Your task to perform on an android device: all mails in gmail Image 0: 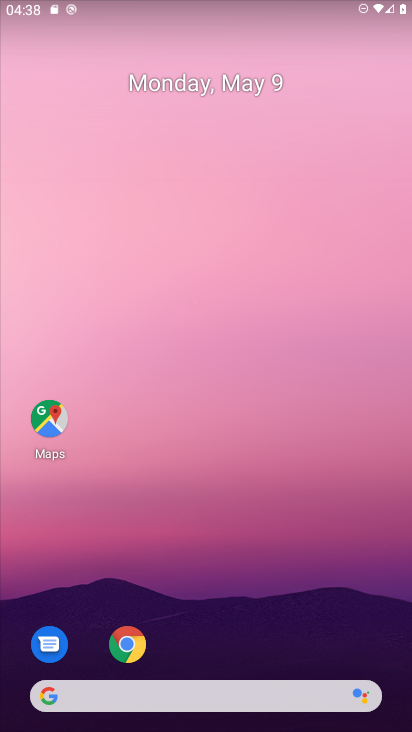
Step 0: drag from (287, 605) to (275, 152)
Your task to perform on an android device: all mails in gmail Image 1: 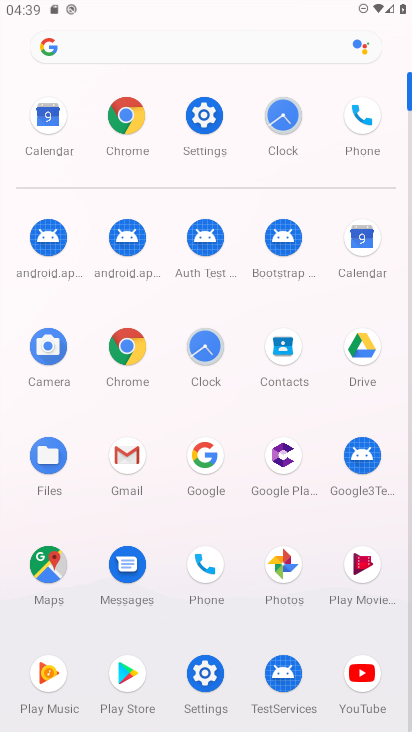
Step 1: click (122, 469)
Your task to perform on an android device: all mails in gmail Image 2: 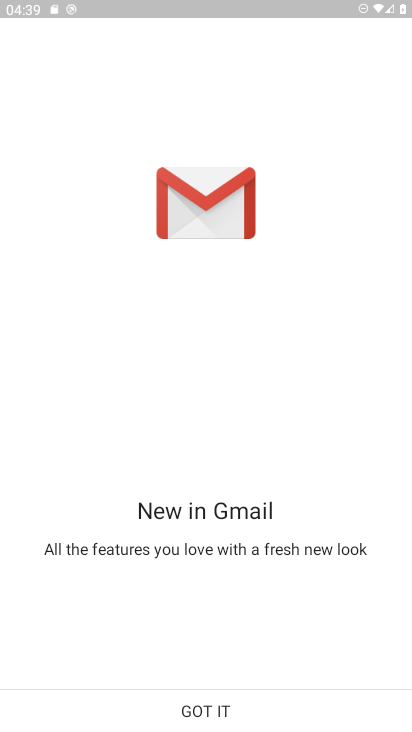
Step 2: click (226, 702)
Your task to perform on an android device: all mails in gmail Image 3: 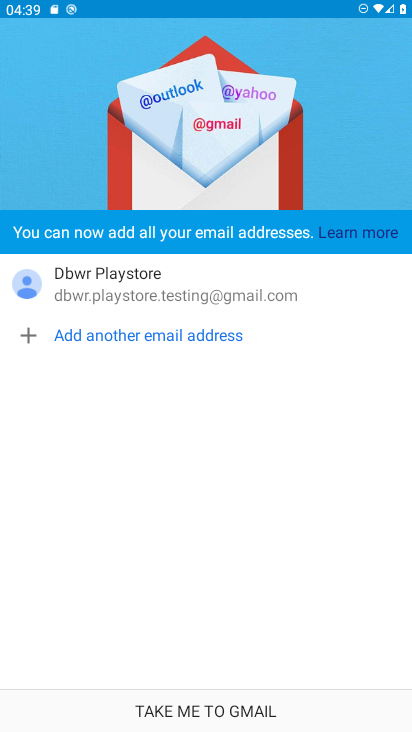
Step 3: click (226, 702)
Your task to perform on an android device: all mails in gmail Image 4: 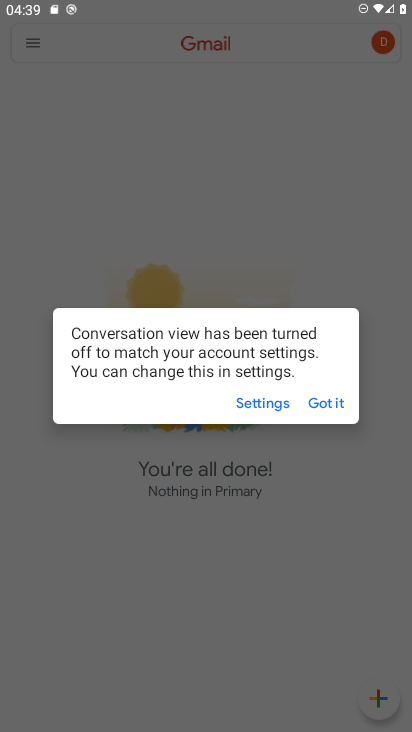
Step 4: click (333, 401)
Your task to perform on an android device: all mails in gmail Image 5: 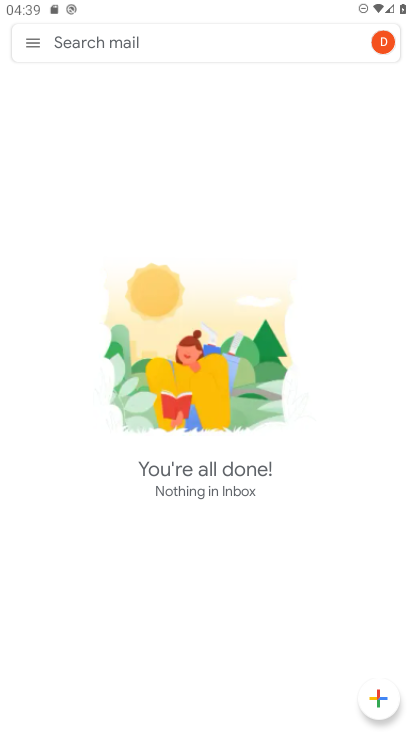
Step 5: click (25, 38)
Your task to perform on an android device: all mails in gmail Image 6: 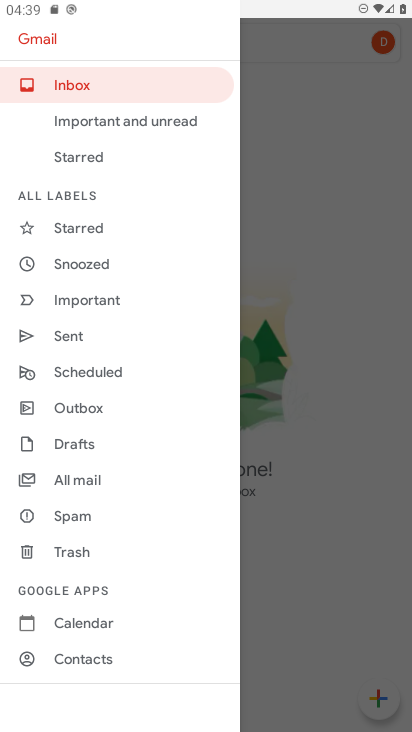
Step 6: click (98, 485)
Your task to perform on an android device: all mails in gmail Image 7: 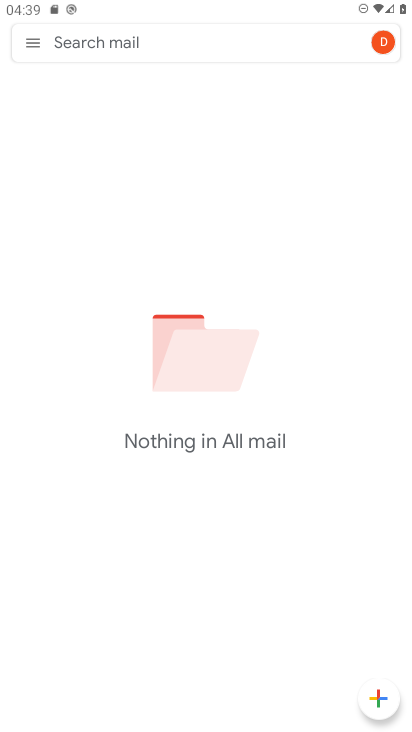
Step 7: task complete